Your task to perform on an android device: open app "Spotify: Music and Podcasts" (install if not already installed) Image 0: 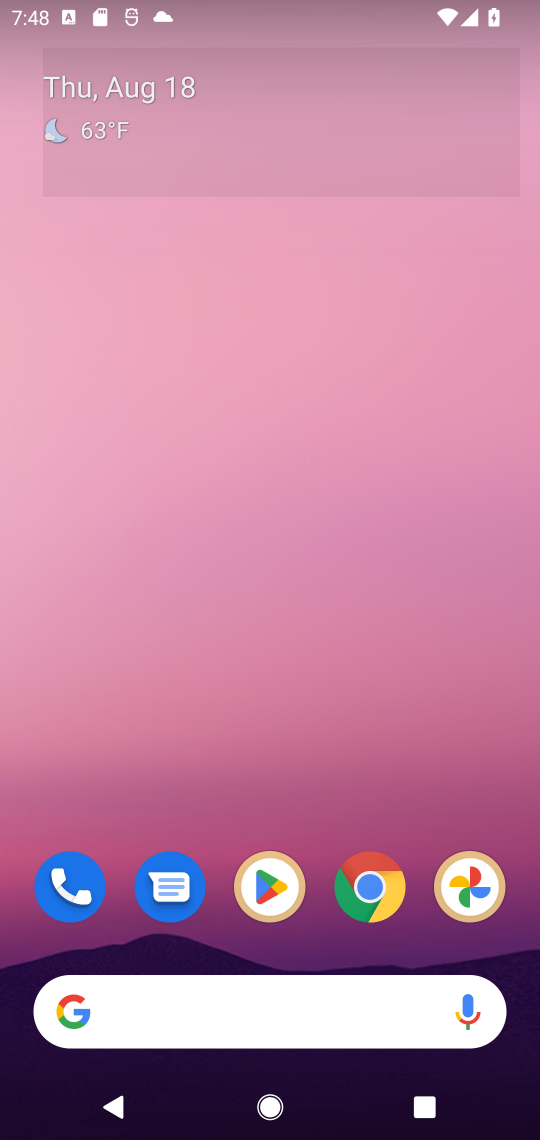
Step 0: drag from (312, 965) to (287, 89)
Your task to perform on an android device: open app "Spotify: Music and Podcasts" (install if not already installed) Image 1: 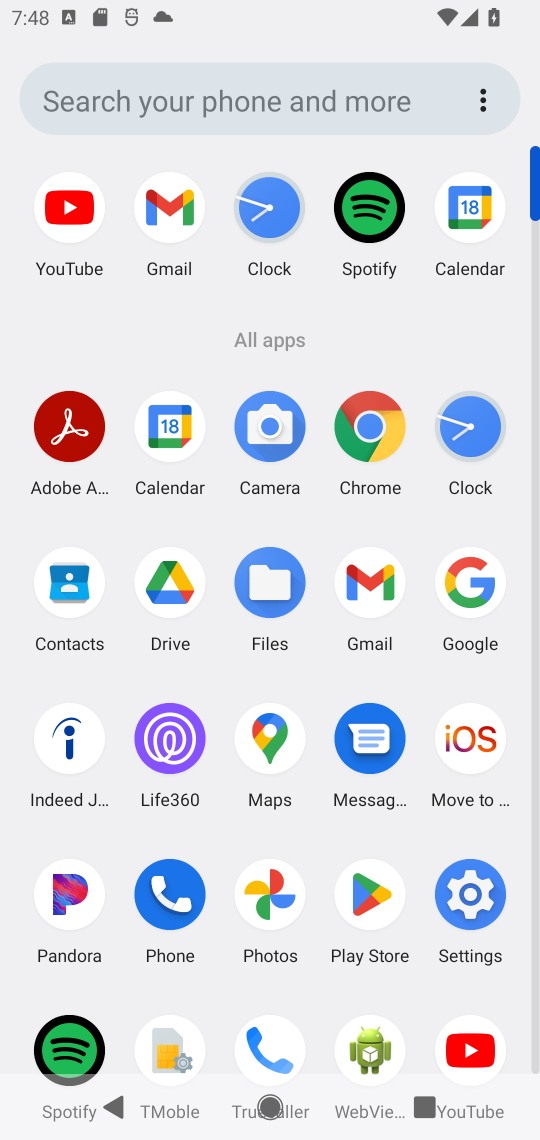
Step 1: click (365, 903)
Your task to perform on an android device: open app "Spotify: Music and Podcasts" (install if not already installed) Image 2: 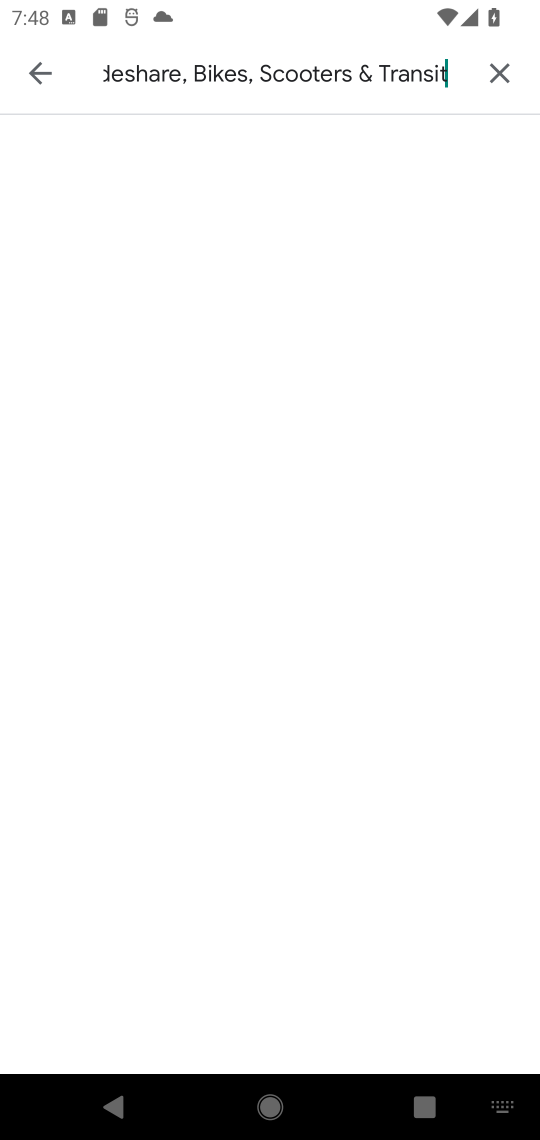
Step 2: click (505, 69)
Your task to perform on an android device: open app "Spotify: Music and Podcasts" (install if not already installed) Image 3: 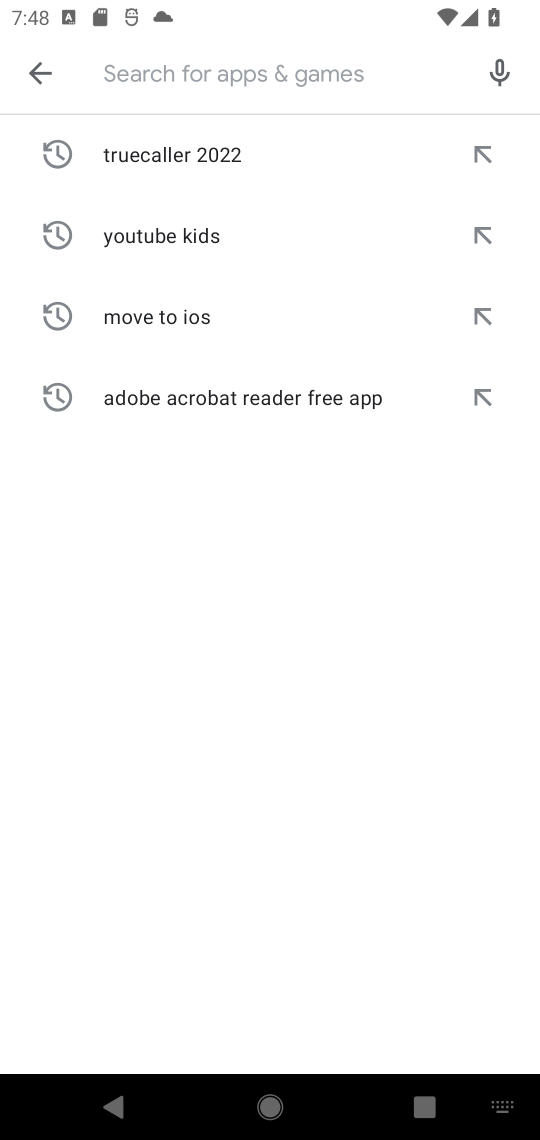
Step 3: type "Spotify: Music and Podcasts"
Your task to perform on an android device: open app "Spotify: Music and Podcasts" (install if not already installed) Image 4: 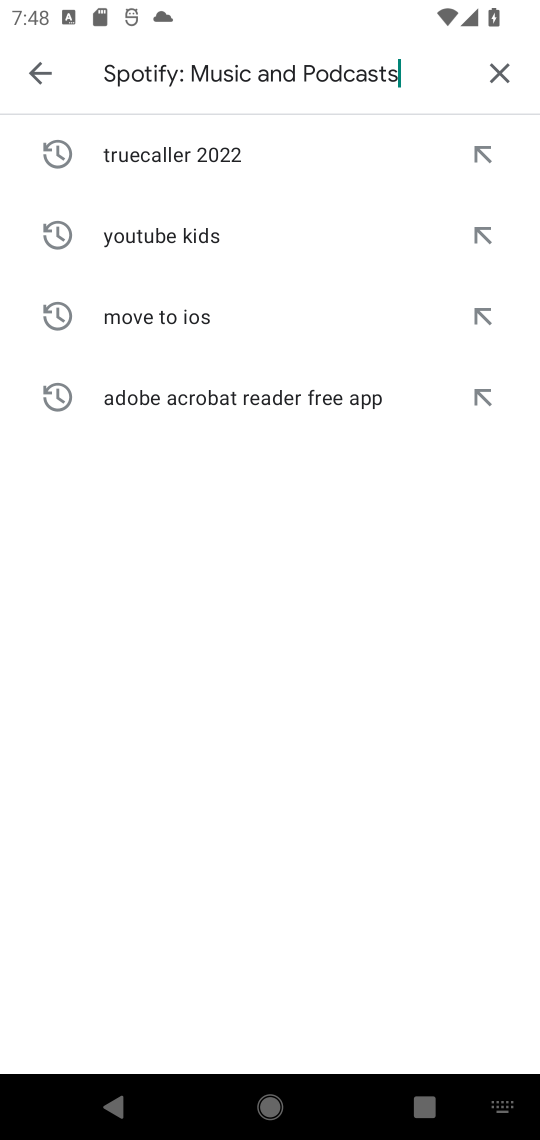
Step 4: type ""
Your task to perform on an android device: open app "Spotify: Music and Podcasts" (install if not already installed) Image 5: 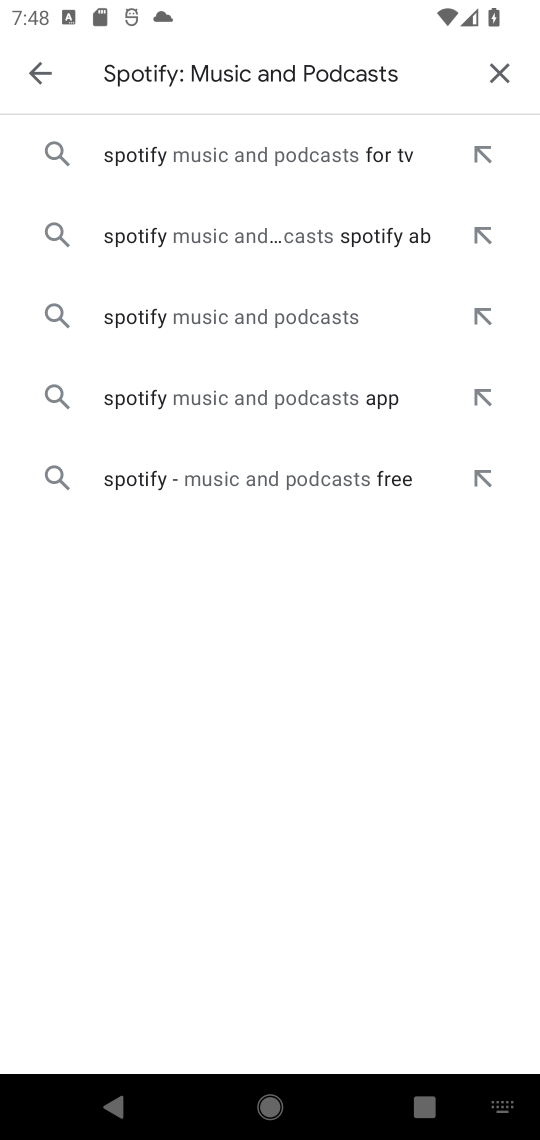
Step 5: click (197, 315)
Your task to perform on an android device: open app "Spotify: Music and Podcasts" (install if not already installed) Image 6: 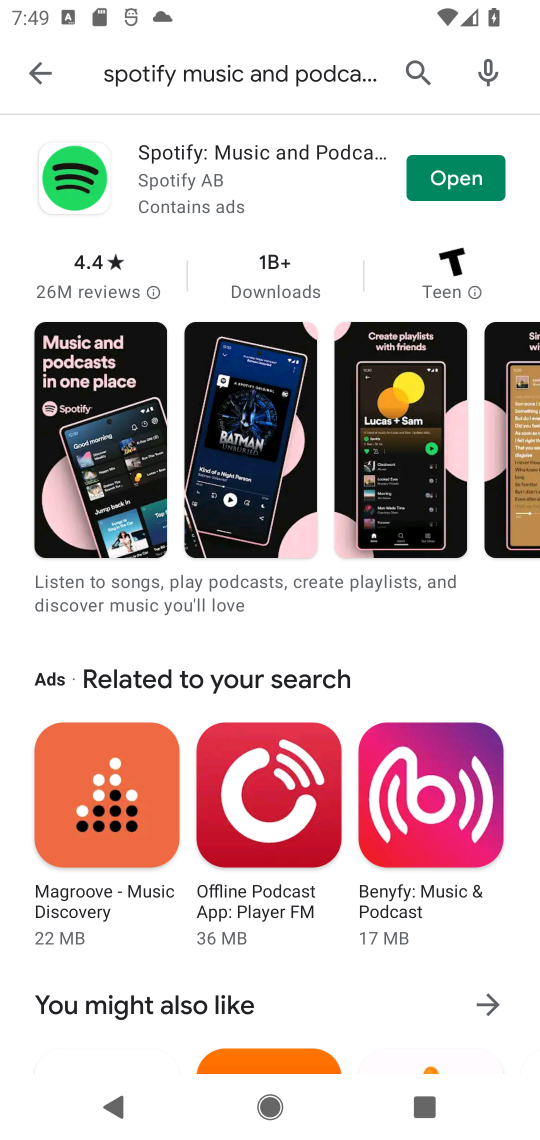
Step 6: click (459, 170)
Your task to perform on an android device: open app "Spotify: Music and Podcasts" (install if not already installed) Image 7: 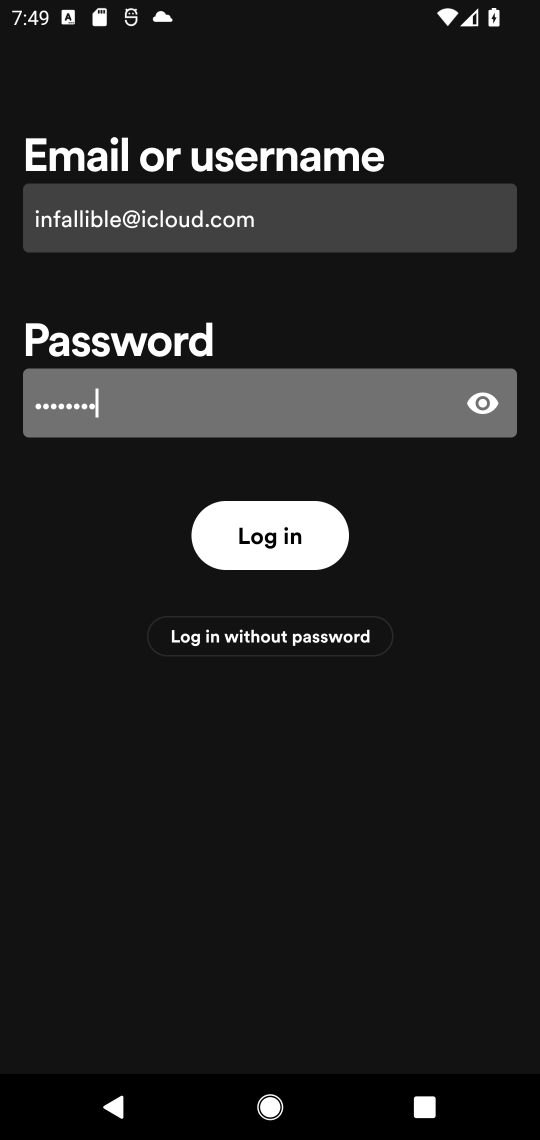
Step 7: task complete